Your task to perform on an android device: What is the recent news? Image 0: 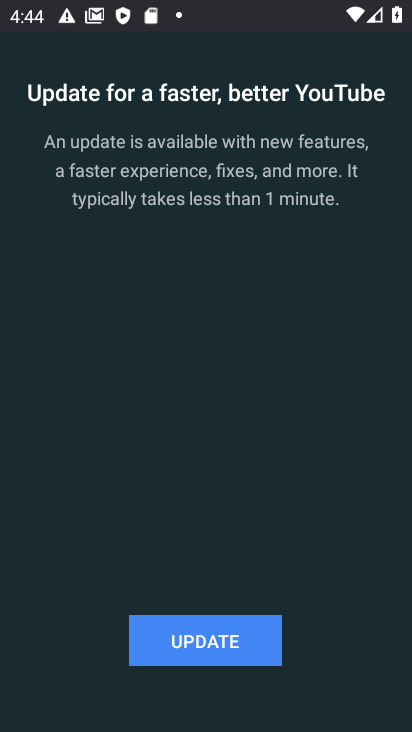
Step 0: press home button
Your task to perform on an android device: What is the recent news? Image 1: 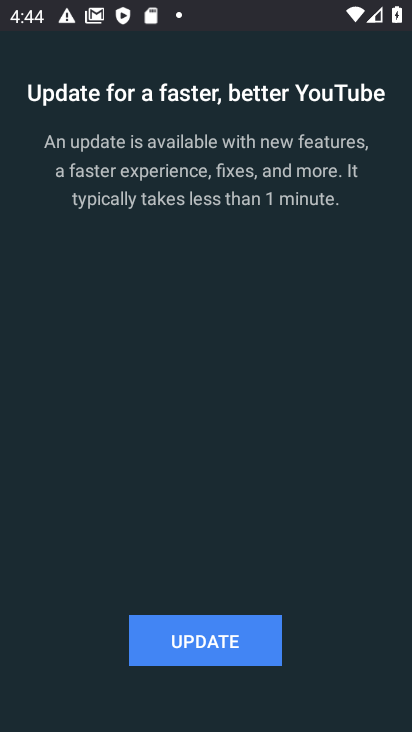
Step 1: press home button
Your task to perform on an android device: What is the recent news? Image 2: 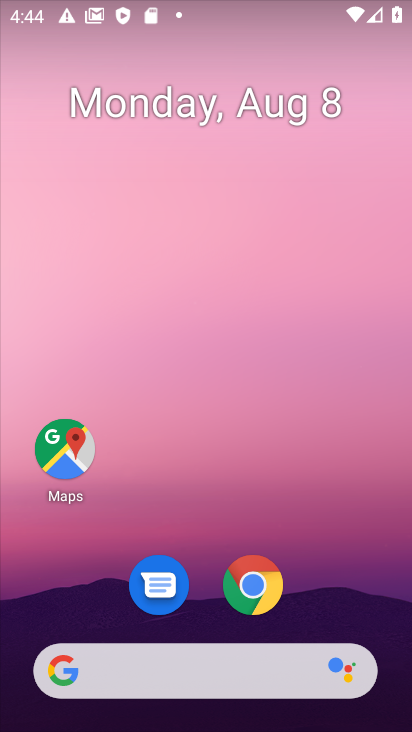
Step 2: click (261, 685)
Your task to perform on an android device: What is the recent news? Image 3: 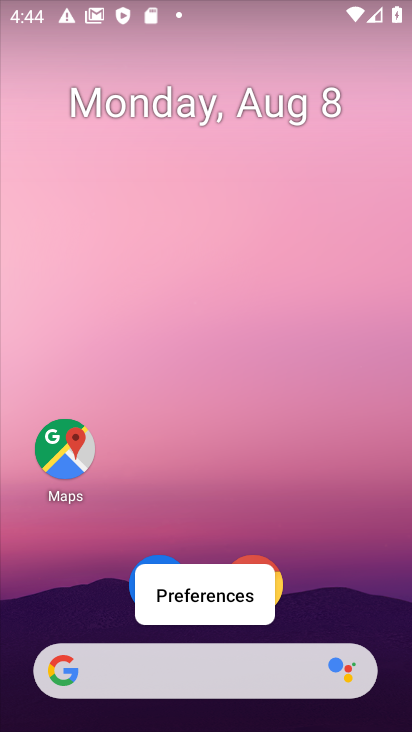
Step 3: click (223, 676)
Your task to perform on an android device: What is the recent news? Image 4: 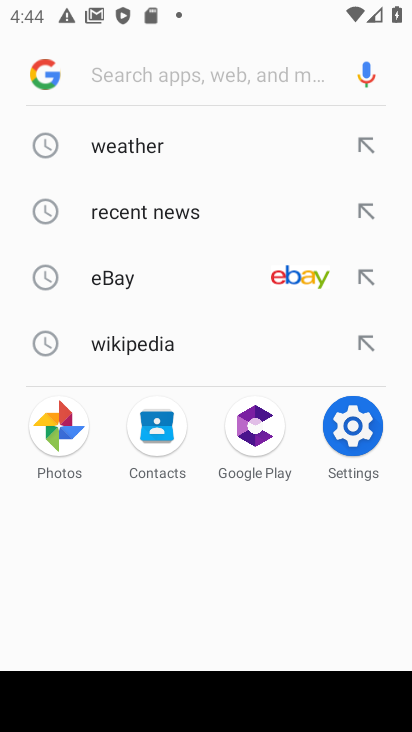
Step 4: click (128, 206)
Your task to perform on an android device: What is the recent news? Image 5: 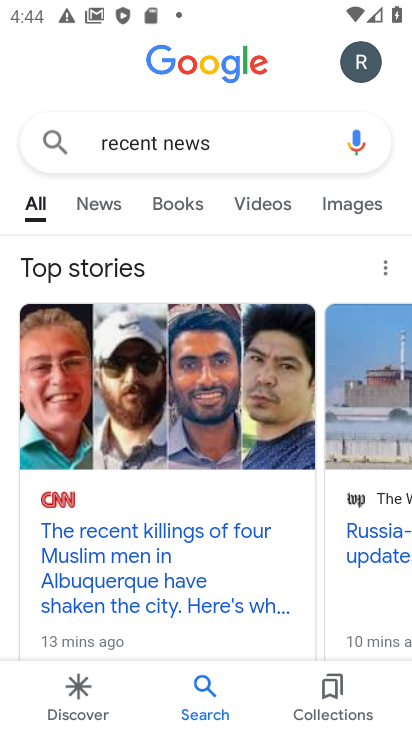
Step 5: click (107, 201)
Your task to perform on an android device: What is the recent news? Image 6: 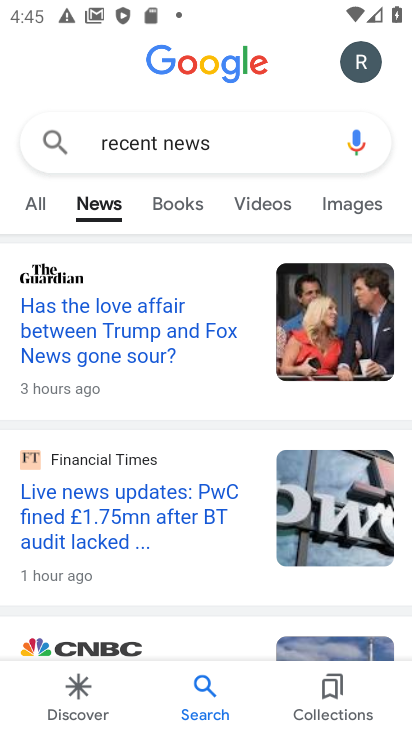
Step 6: drag from (321, 507) to (302, 124)
Your task to perform on an android device: What is the recent news? Image 7: 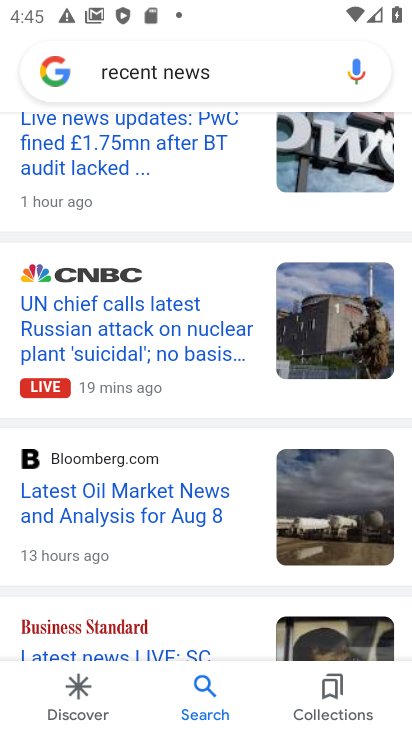
Step 7: drag from (234, 550) to (248, 193)
Your task to perform on an android device: What is the recent news? Image 8: 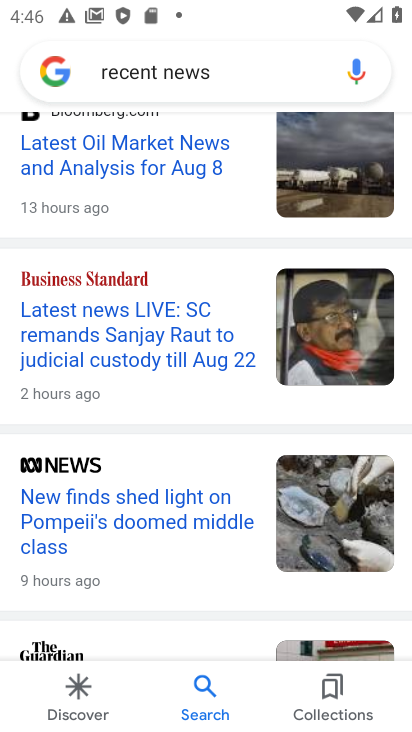
Step 8: click (138, 346)
Your task to perform on an android device: What is the recent news? Image 9: 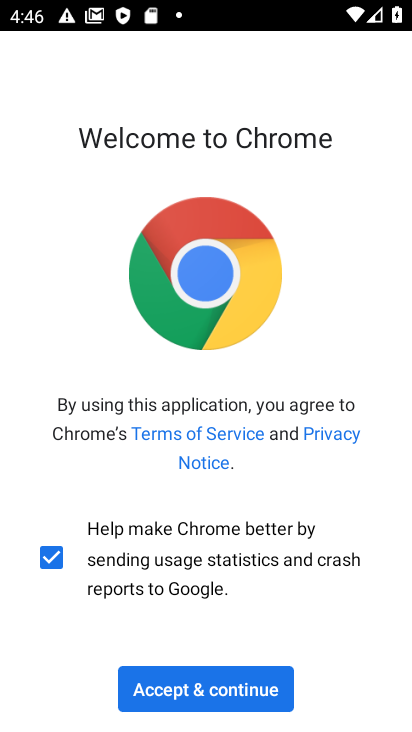
Step 9: click (258, 688)
Your task to perform on an android device: What is the recent news? Image 10: 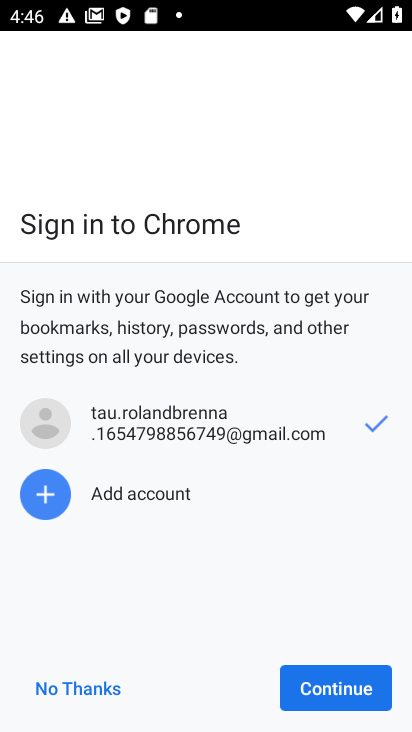
Step 10: click (325, 689)
Your task to perform on an android device: What is the recent news? Image 11: 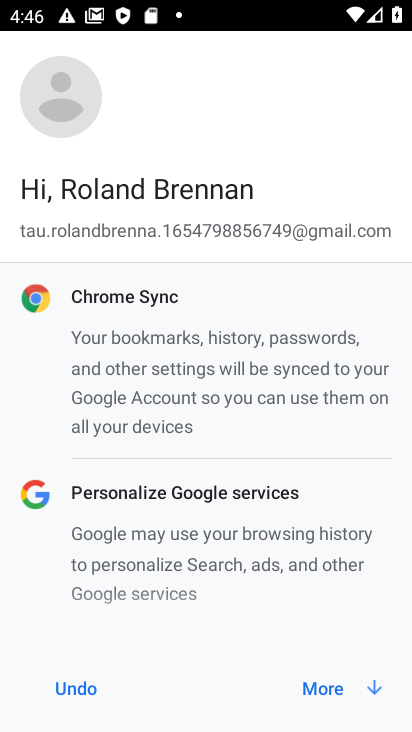
Step 11: click (325, 691)
Your task to perform on an android device: What is the recent news? Image 12: 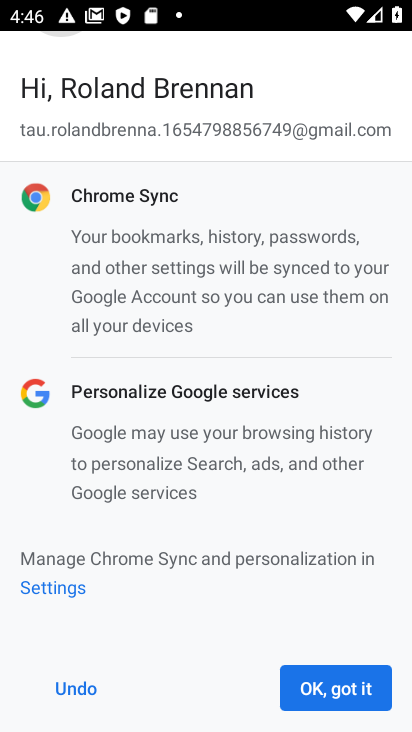
Step 12: click (325, 689)
Your task to perform on an android device: What is the recent news? Image 13: 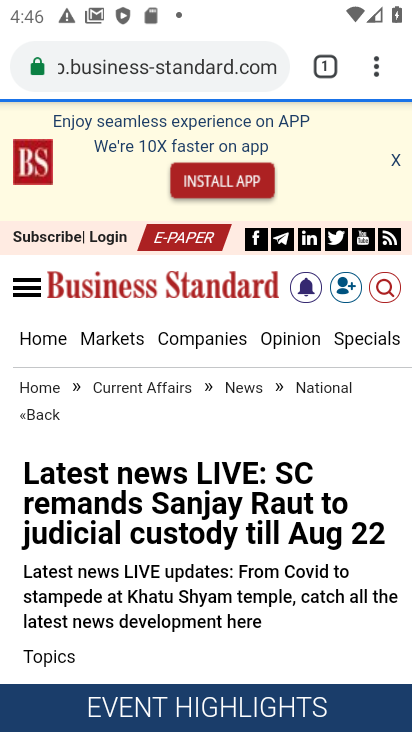
Step 13: task complete